Your task to perform on an android device: Go to display settings Image 0: 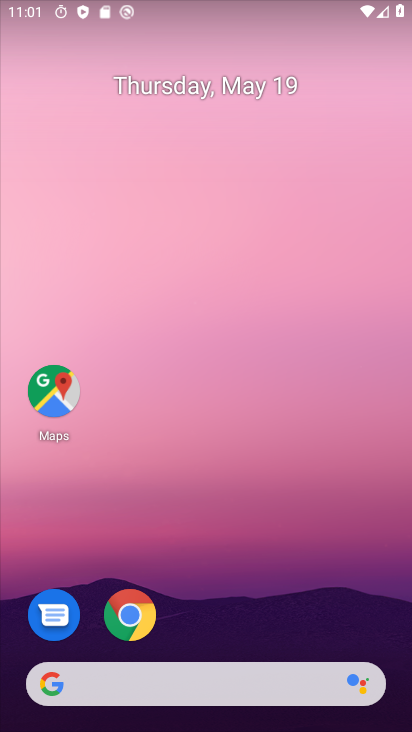
Step 0: drag from (228, 529) to (243, 0)
Your task to perform on an android device: Go to display settings Image 1: 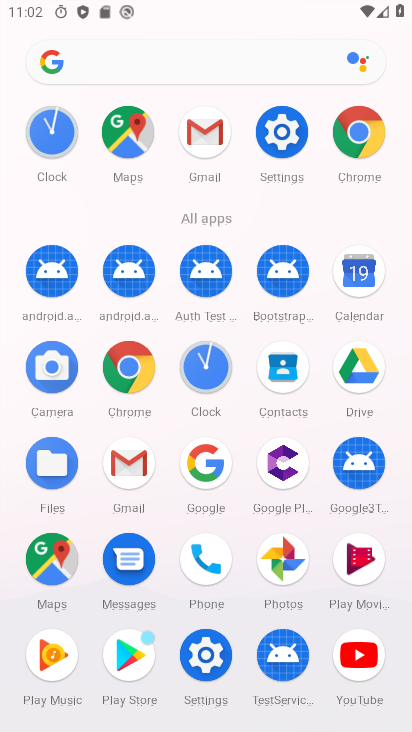
Step 1: click (223, 663)
Your task to perform on an android device: Go to display settings Image 2: 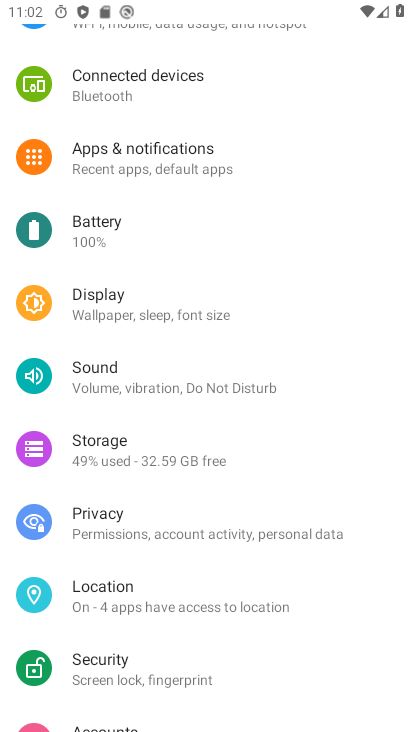
Step 2: click (143, 311)
Your task to perform on an android device: Go to display settings Image 3: 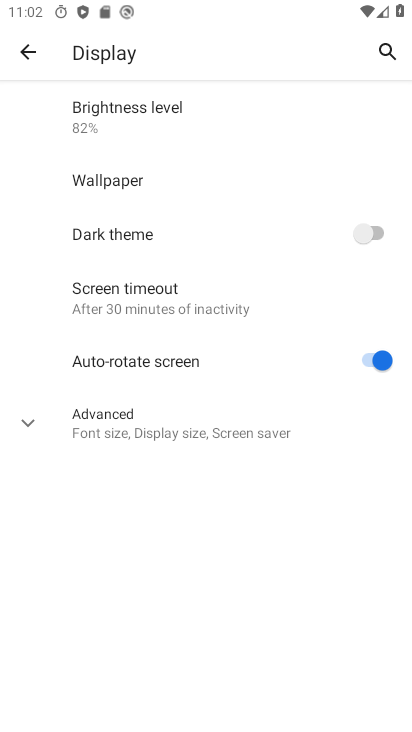
Step 3: task complete